Your task to perform on an android device: Add "macbook pro" to the cart on bestbuy.com Image 0: 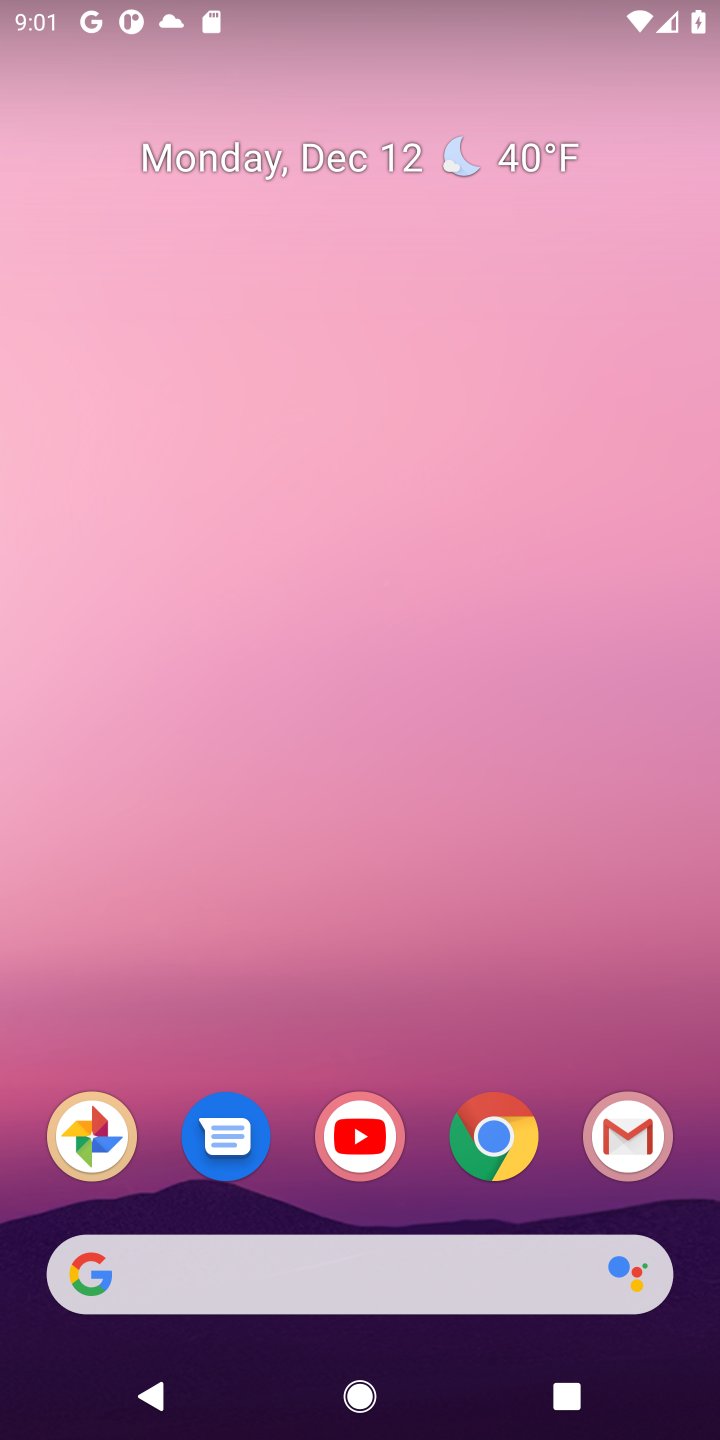
Step 0: click (512, 1152)
Your task to perform on an android device: Add "macbook pro" to the cart on bestbuy.com Image 1: 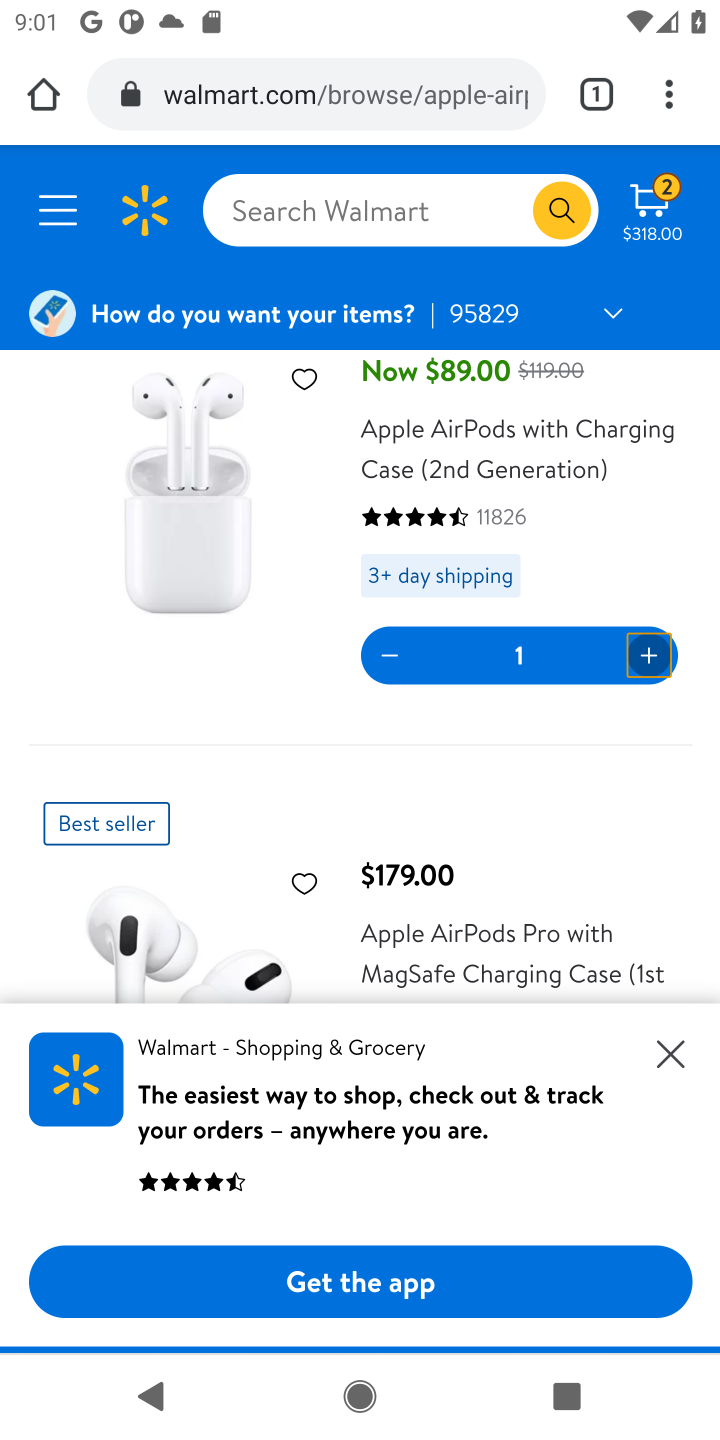
Step 1: click (316, 86)
Your task to perform on an android device: Add "macbook pro" to the cart on bestbuy.com Image 2: 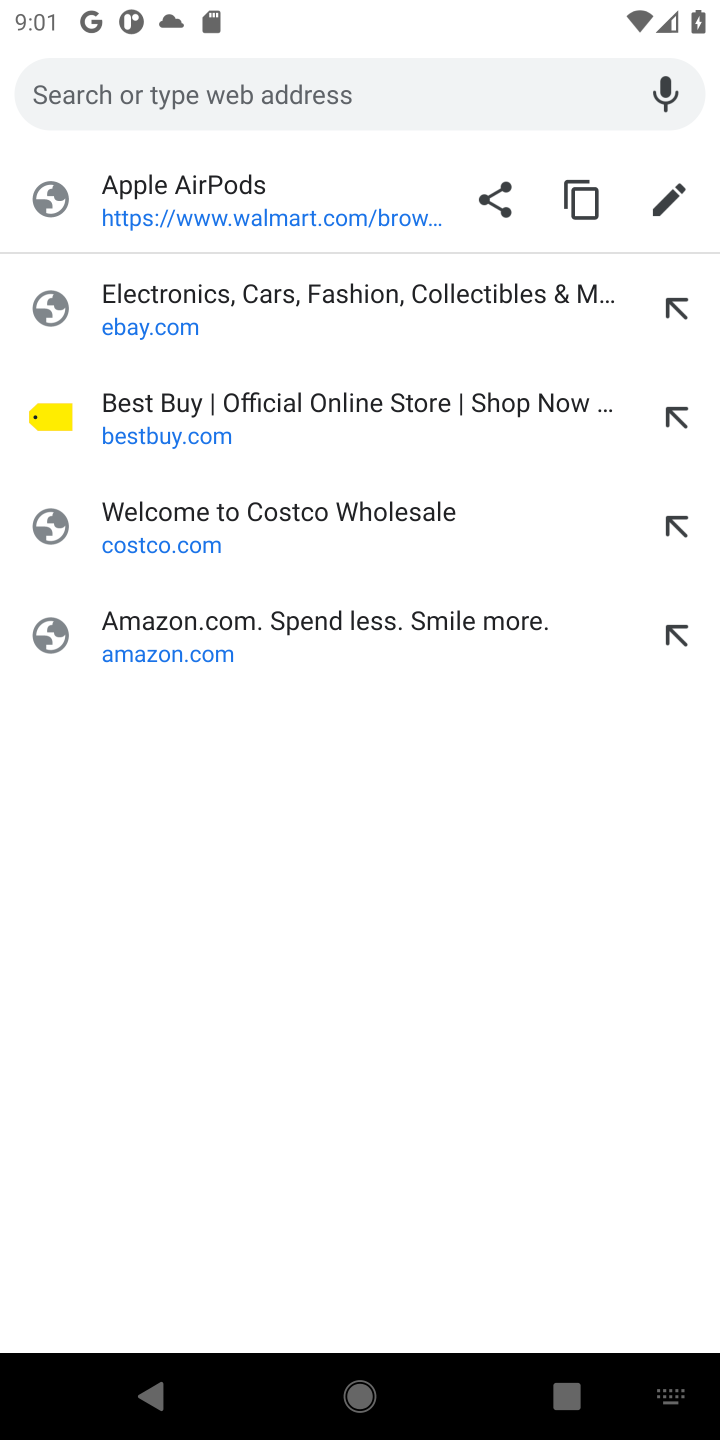
Step 2: click (143, 416)
Your task to perform on an android device: Add "macbook pro" to the cart on bestbuy.com Image 3: 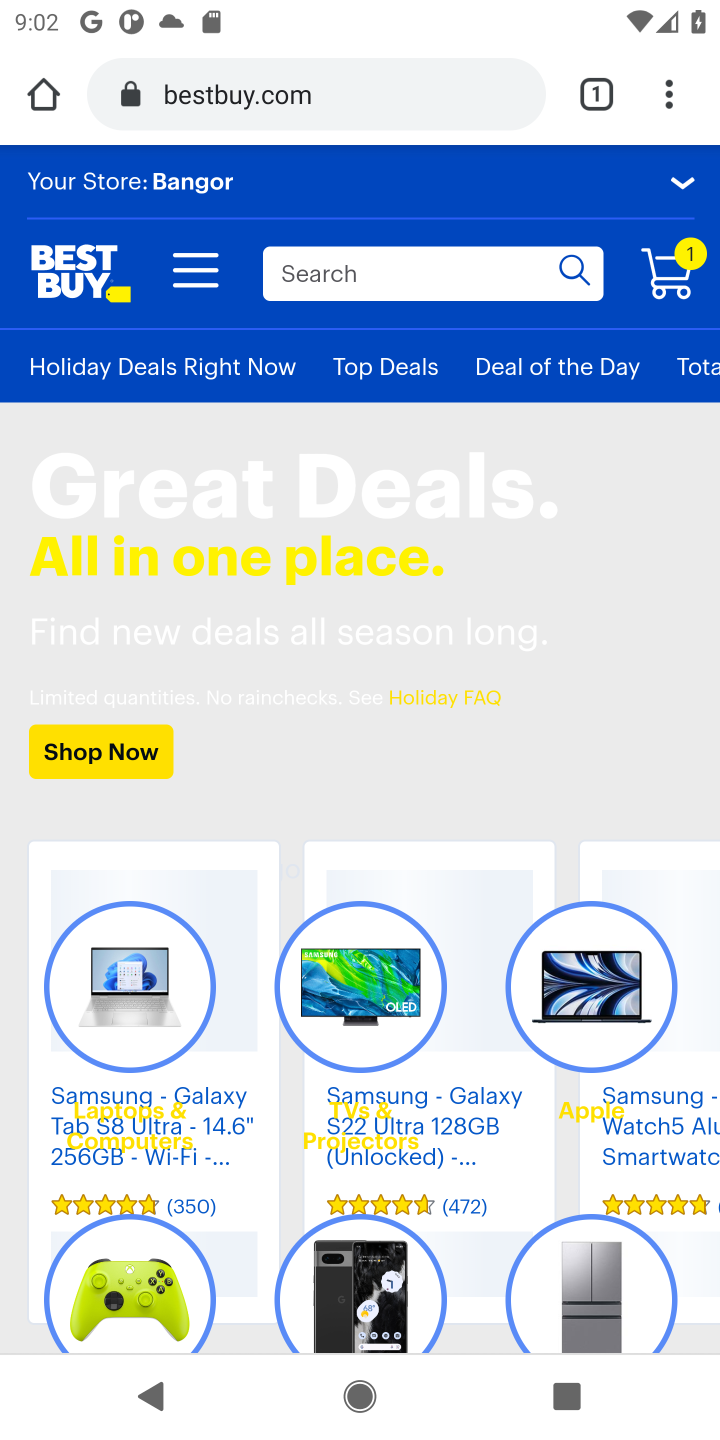
Step 3: click (347, 270)
Your task to perform on an android device: Add "macbook pro" to the cart on bestbuy.com Image 4: 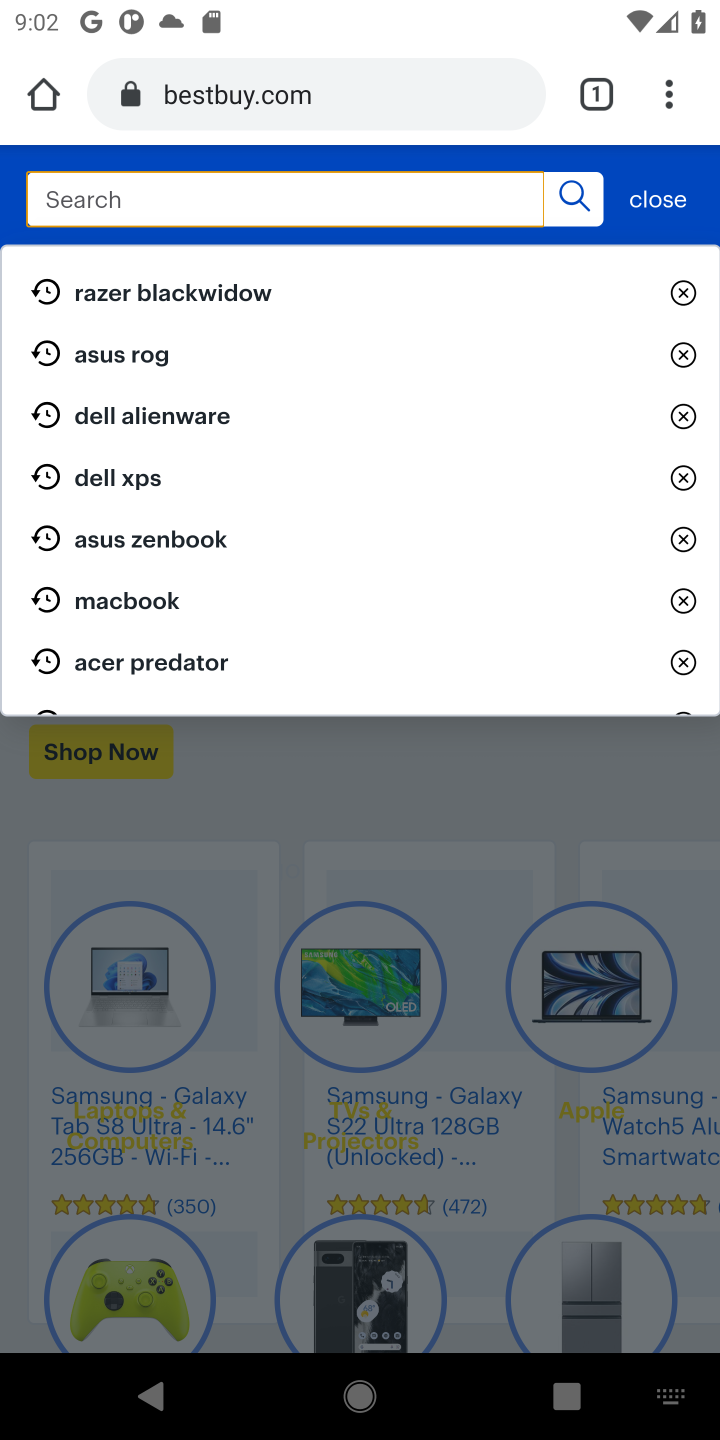
Step 4: type "macbook pro"
Your task to perform on an android device: Add "macbook pro" to the cart on bestbuy.com Image 5: 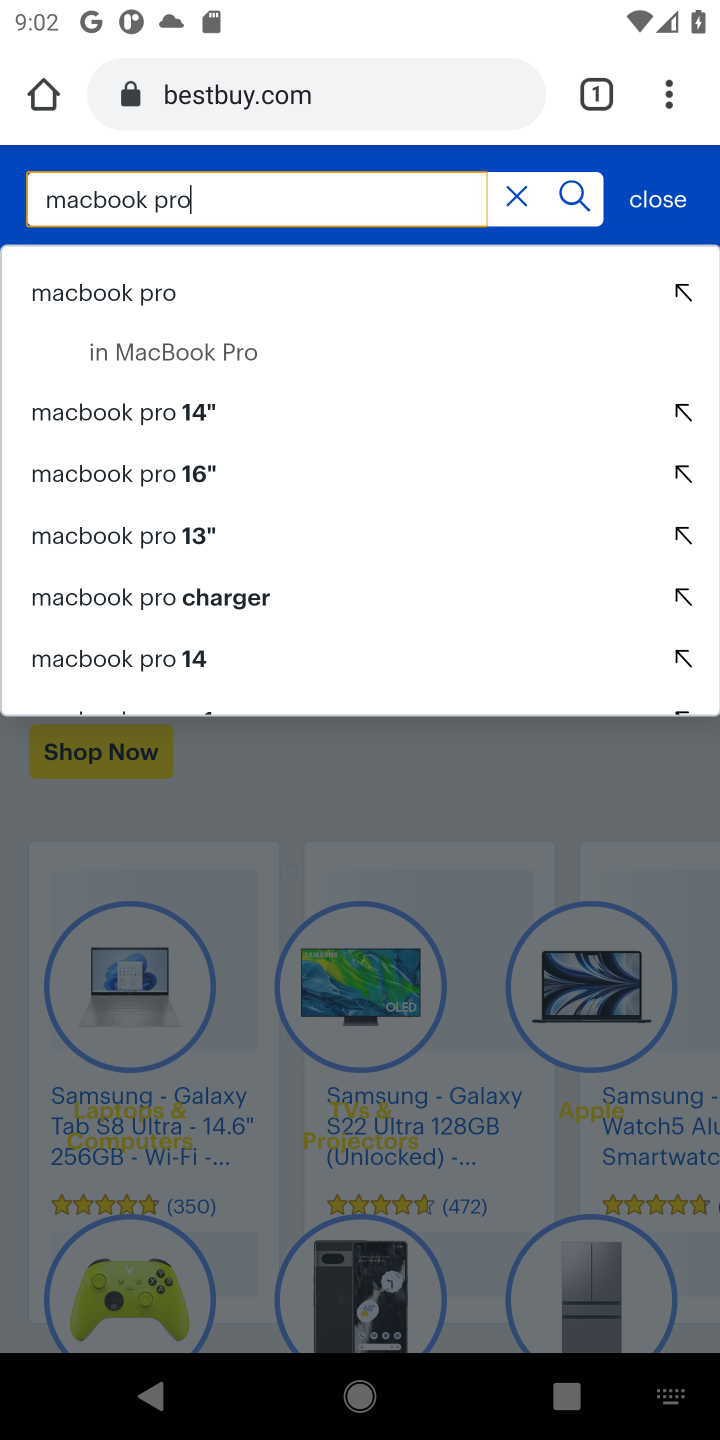
Step 5: click (116, 296)
Your task to perform on an android device: Add "macbook pro" to the cart on bestbuy.com Image 6: 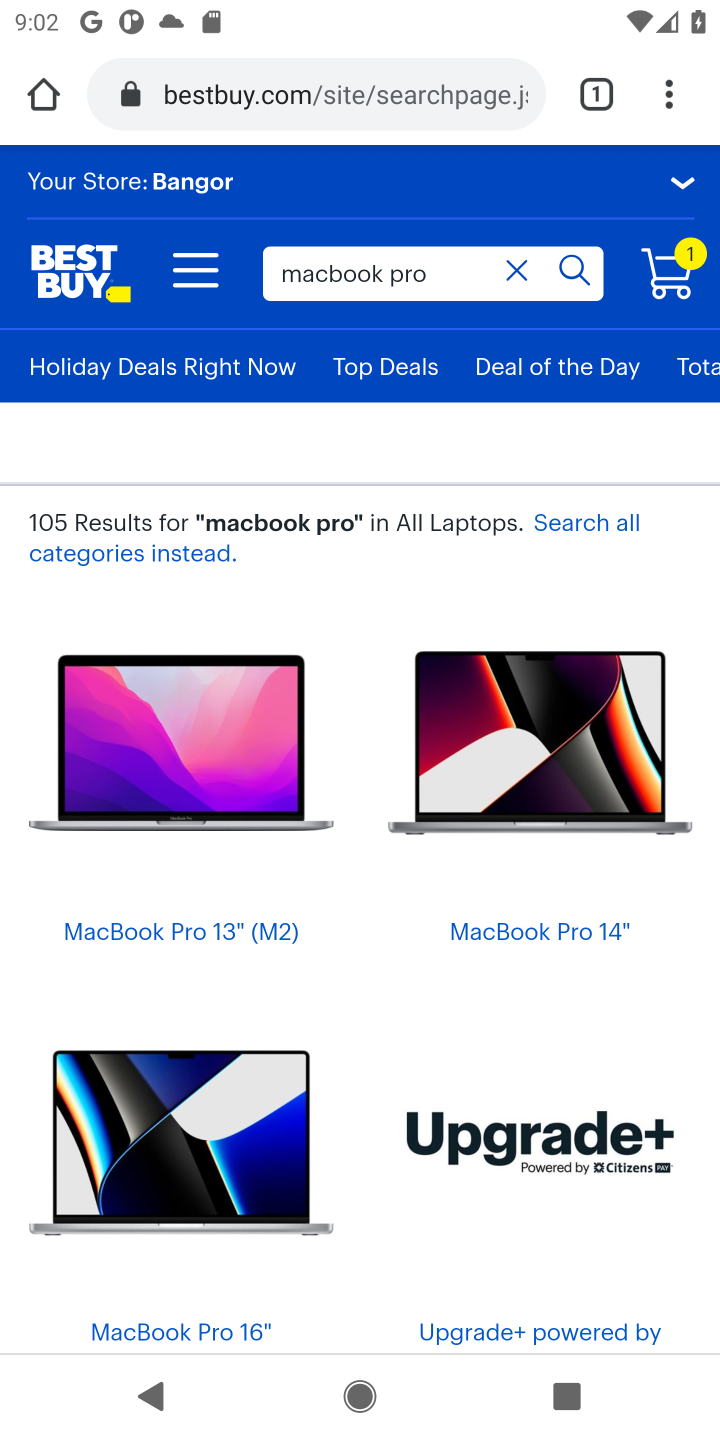
Step 6: drag from (354, 881) to (339, 337)
Your task to perform on an android device: Add "macbook pro" to the cart on bestbuy.com Image 7: 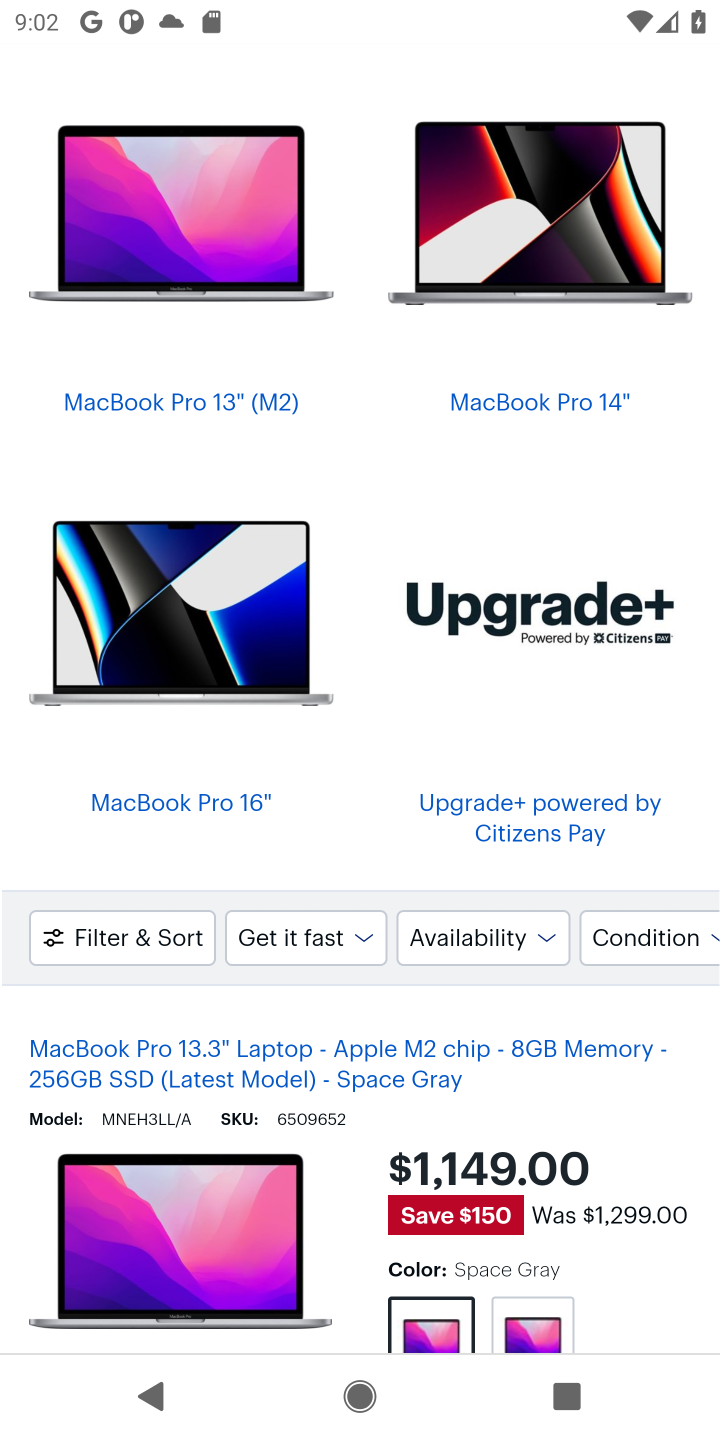
Step 7: drag from (308, 901) to (316, 402)
Your task to perform on an android device: Add "macbook pro" to the cart on bestbuy.com Image 8: 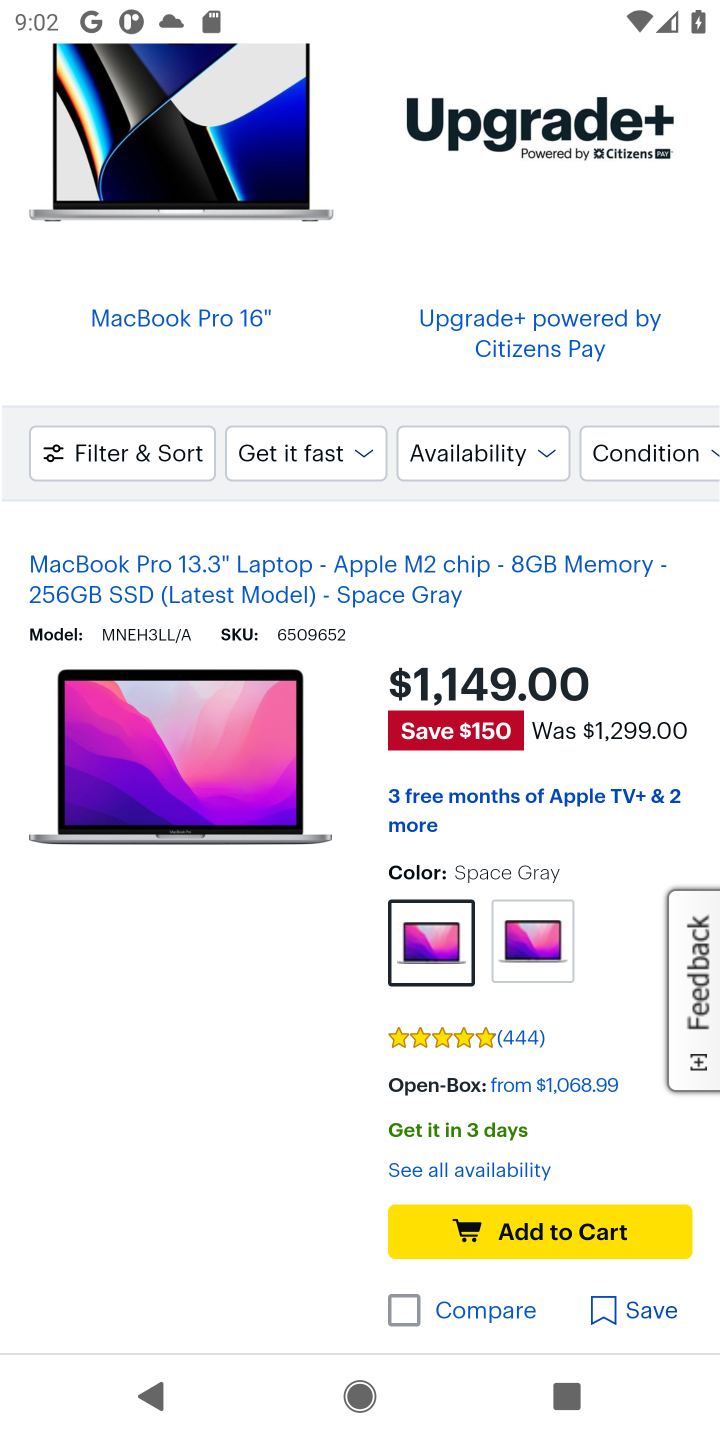
Step 8: click (508, 1232)
Your task to perform on an android device: Add "macbook pro" to the cart on bestbuy.com Image 9: 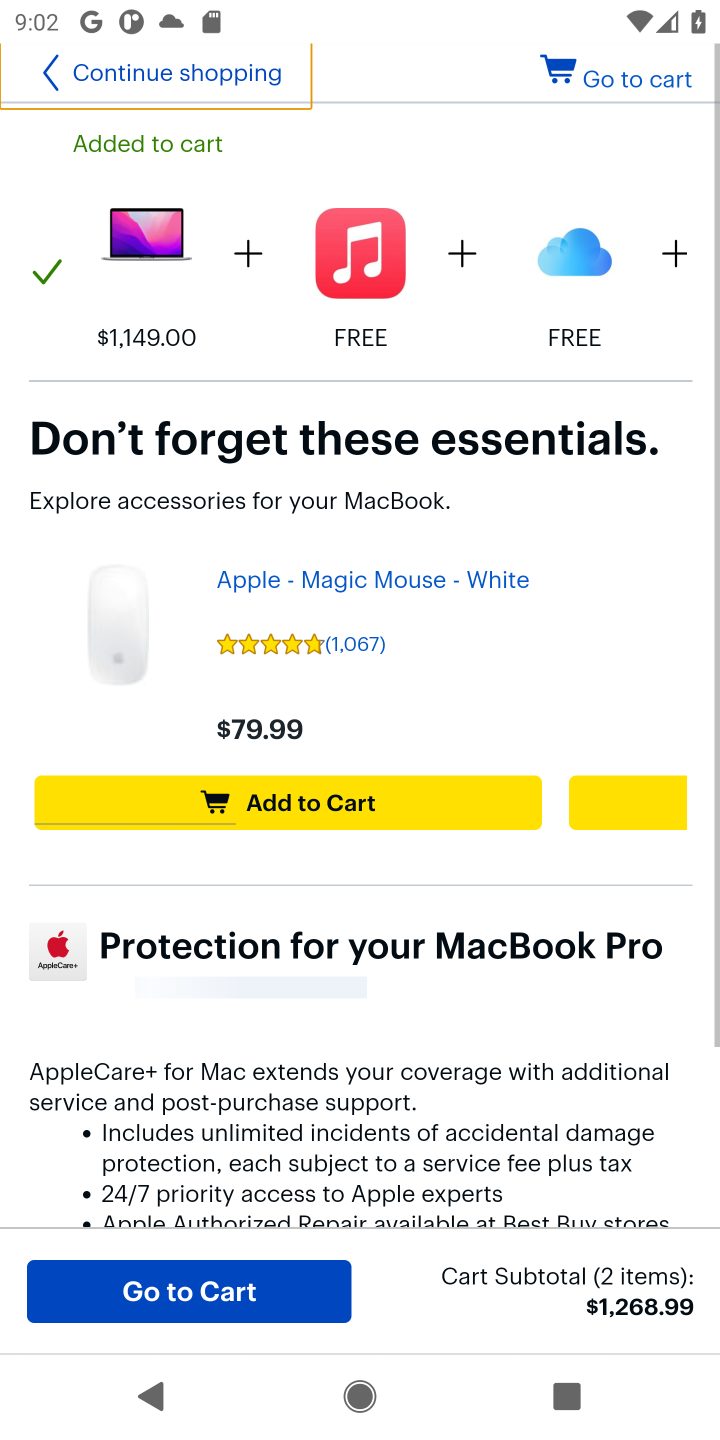
Step 9: task complete